Your task to perform on an android device: Search for panasonic triple a on target.com, select the first entry, add it to the cart, then select checkout. Image 0: 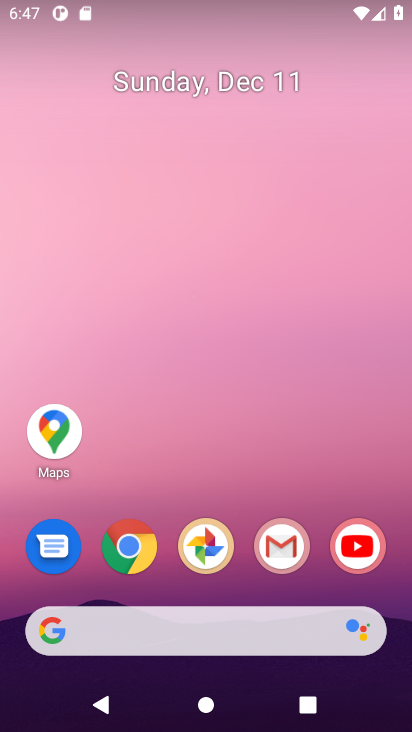
Step 0: drag from (101, 603) to (81, 194)
Your task to perform on an android device: Search for panasonic triple a on target.com, select the first entry, add it to the cart, then select checkout. Image 1: 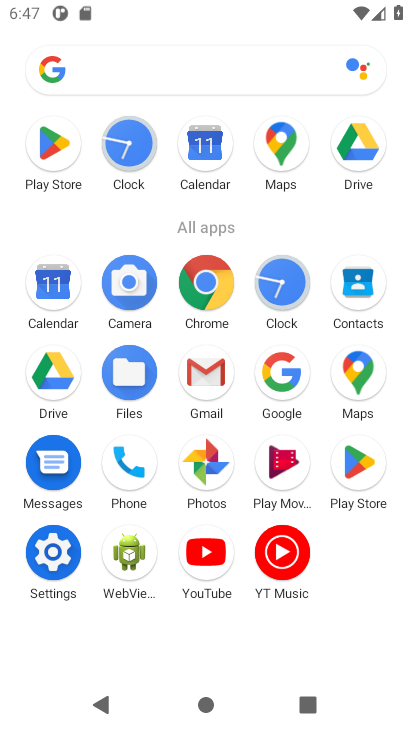
Step 1: click (287, 371)
Your task to perform on an android device: Search for panasonic triple a on target.com, select the first entry, add it to the cart, then select checkout. Image 2: 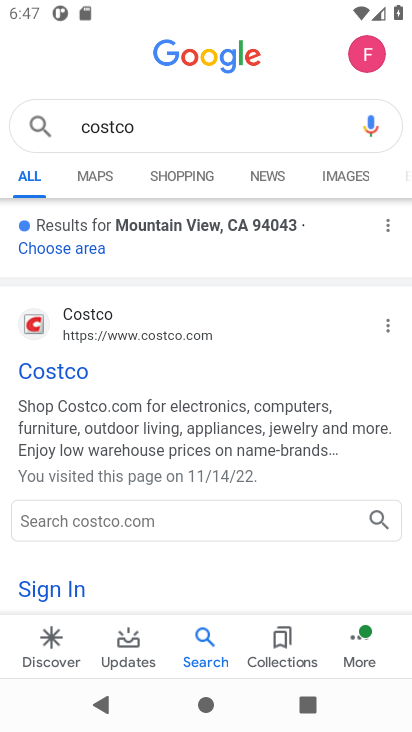
Step 2: click (133, 130)
Your task to perform on an android device: Search for panasonic triple a on target.com, select the first entry, add it to the cart, then select checkout. Image 3: 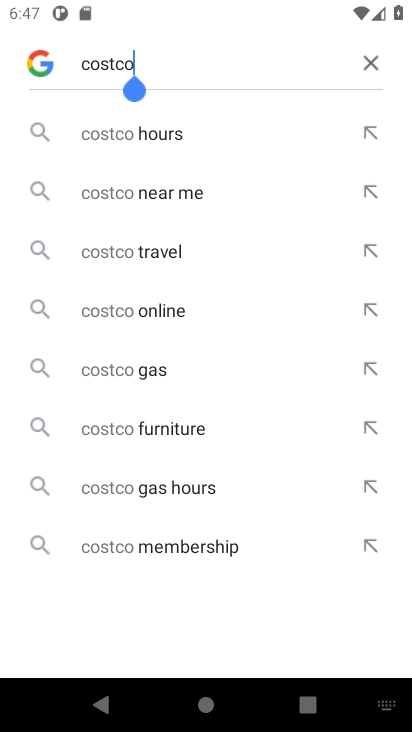
Step 3: click (365, 54)
Your task to perform on an android device: Search for panasonic triple a on target.com, select the first entry, add it to the cart, then select checkout. Image 4: 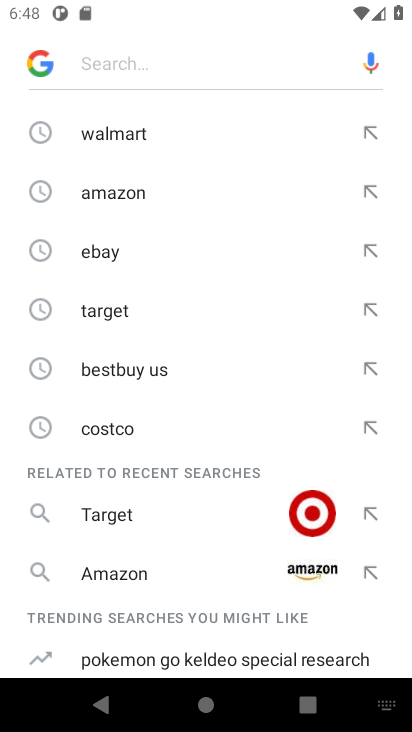
Step 4: click (119, 515)
Your task to perform on an android device: Search for panasonic triple a on target.com, select the first entry, add it to the cart, then select checkout. Image 5: 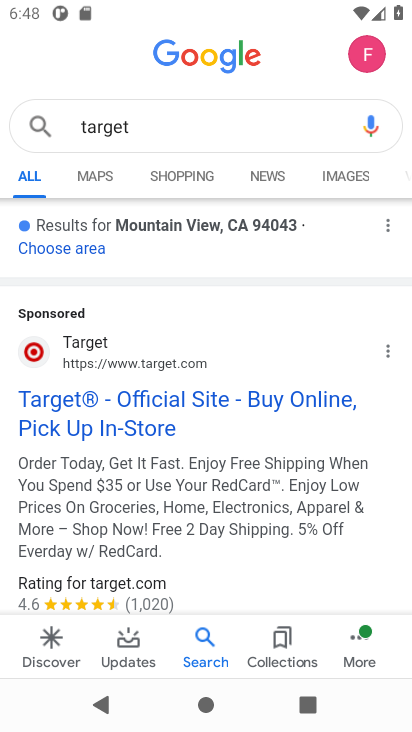
Step 5: click (111, 403)
Your task to perform on an android device: Search for panasonic triple a on target.com, select the first entry, add it to the cart, then select checkout. Image 6: 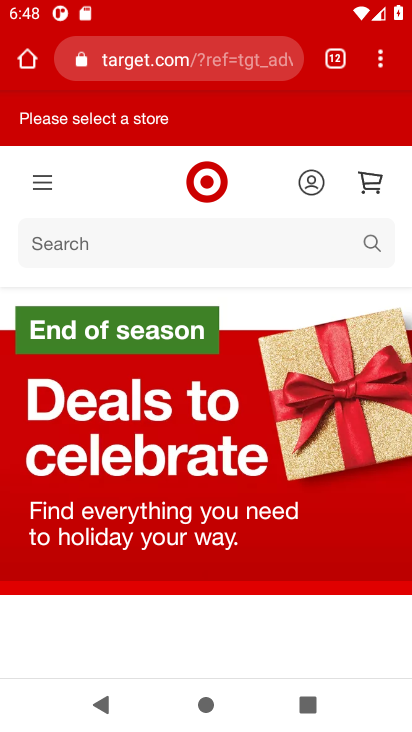
Step 6: click (31, 252)
Your task to perform on an android device: Search for panasonic triple a on target.com, select the first entry, add it to the cart, then select checkout. Image 7: 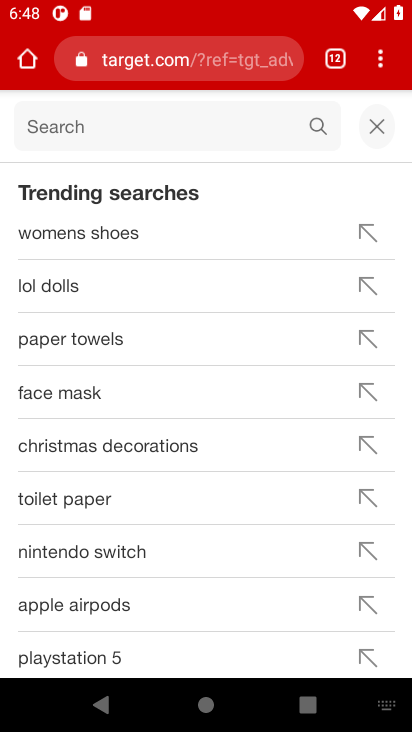
Step 7: type "panasonic triple a "
Your task to perform on an android device: Search for panasonic triple a on target.com, select the first entry, add it to the cart, then select checkout. Image 8: 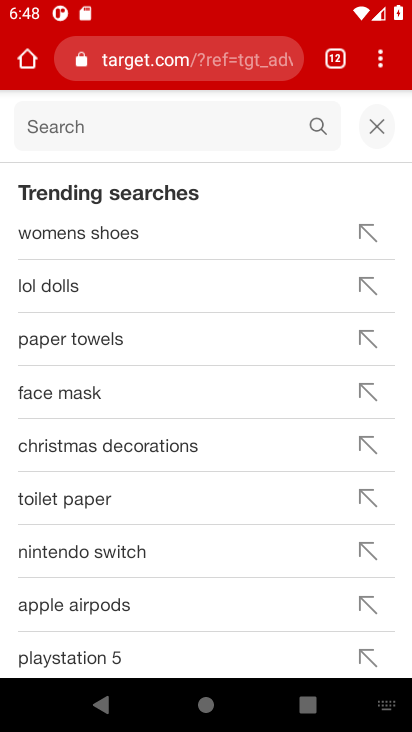
Step 8: click (321, 118)
Your task to perform on an android device: Search for panasonic triple a on target.com, select the first entry, add it to the cart, then select checkout. Image 9: 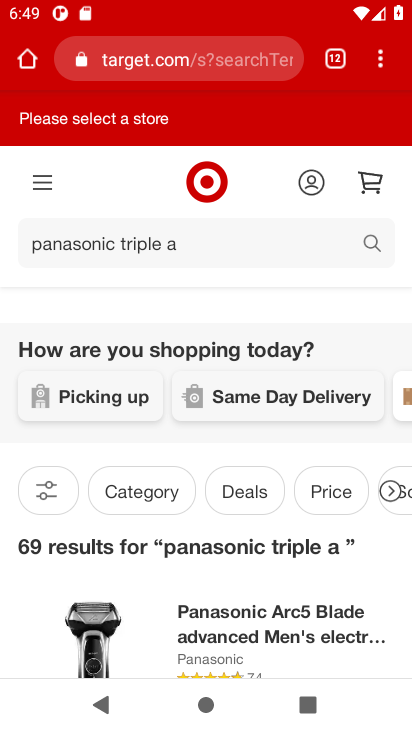
Step 9: drag from (238, 621) to (102, 289)
Your task to perform on an android device: Search for panasonic triple a on target.com, select the first entry, add it to the cart, then select checkout. Image 10: 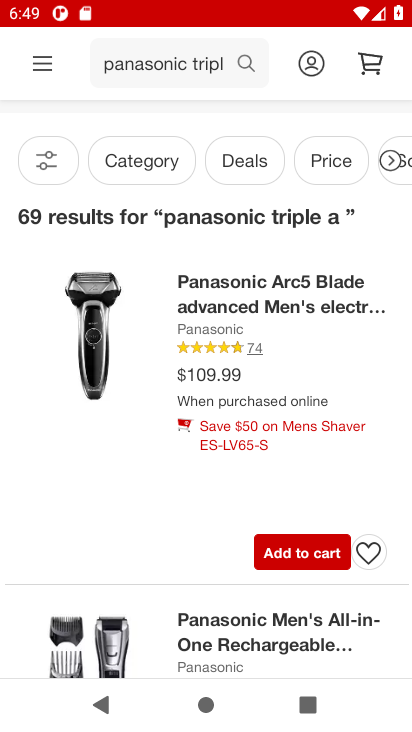
Step 10: click (342, 551)
Your task to perform on an android device: Search for panasonic triple a on target.com, select the first entry, add it to the cart, then select checkout. Image 11: 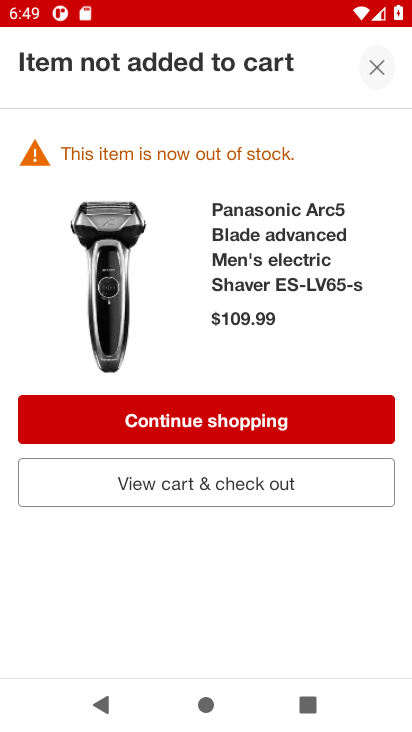
Step 11: click (376, 68)
Your task to perform on an android device: Search for panasonic triple a on target.com, select the first entry, add it to the cart, then select checkout. Image 12: 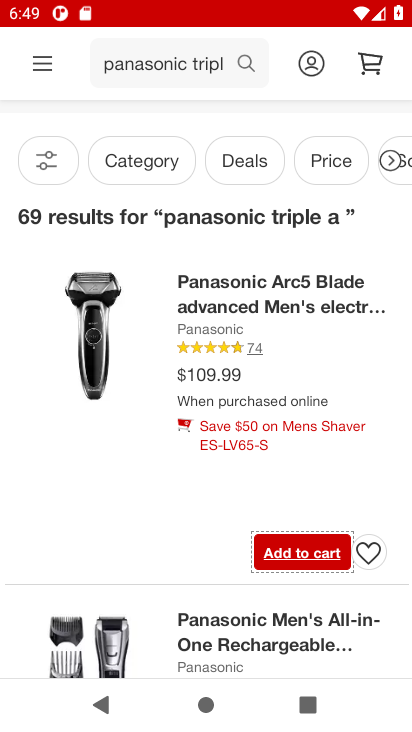
Step 12: click (310, 552)
Your task to perform on an android device: Search for panasonic triple a on target.com, select the first entry, add it to the cart, then select checkout. Image 13: 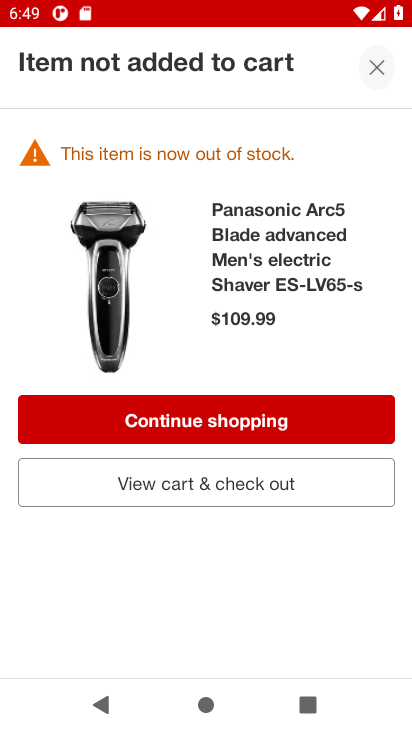
Step 13: click (130, 485)
Your task to perform on an android device: Search for panasonic triple a on target.com, select the first entry, add it to the cart, then select checkout. Image 14: 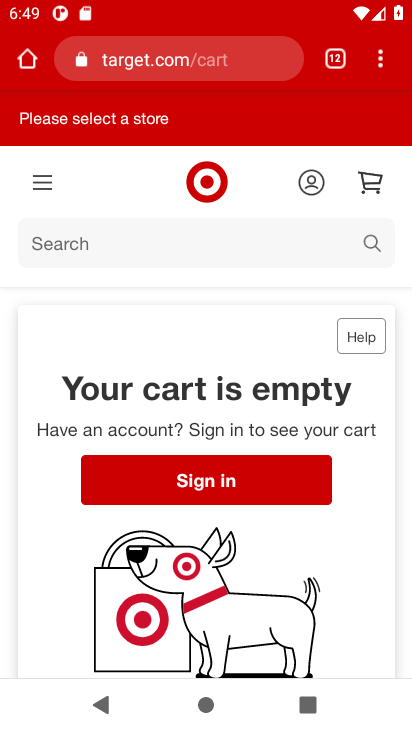
Step 14: task complete